Your task to perform on an android device: manage bookmarks in the chrome app Image 0: 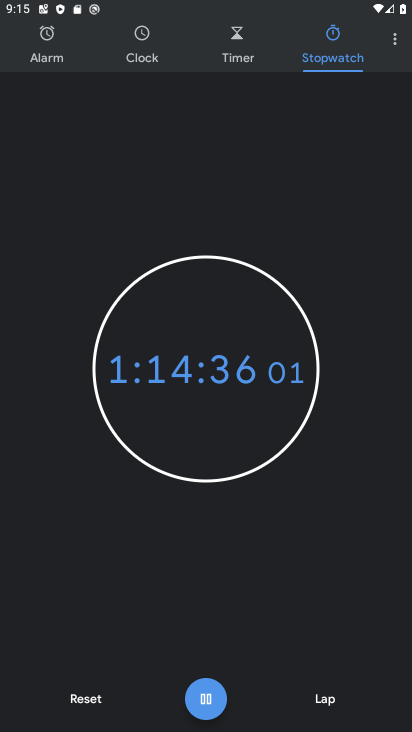
Step 0: press home button
Your task to perform on an android device: manage bookmarks in the chrome app Image 1: 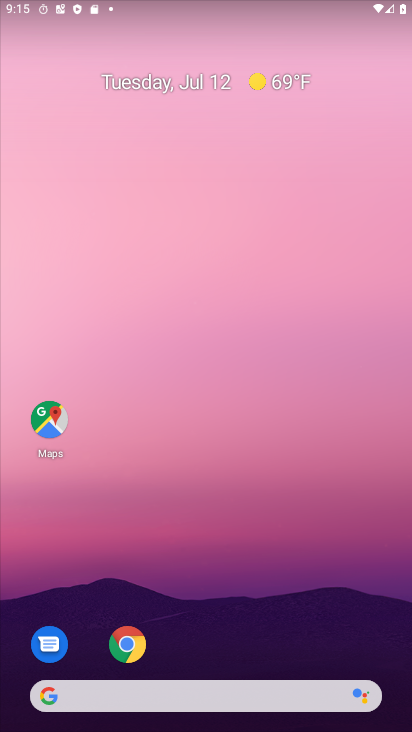
Step 1: click (125, 641)
Your task to perform on an android device: manage bookmarks in the chrome app Image 2: 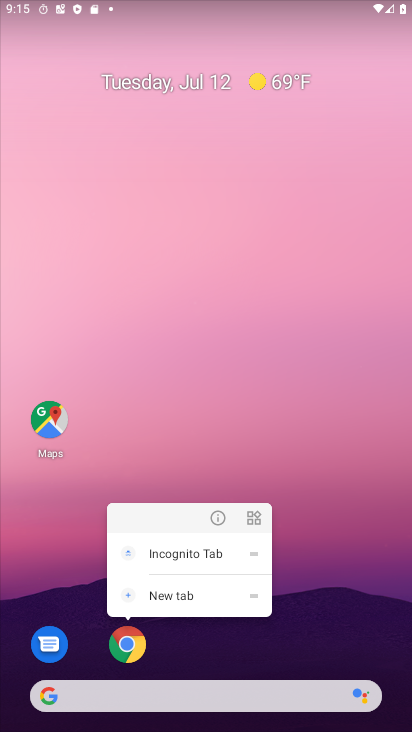
Step 2: click (126, 644)
Your task to perform on an android device: manage bookmarks in the chrome app Image 3: 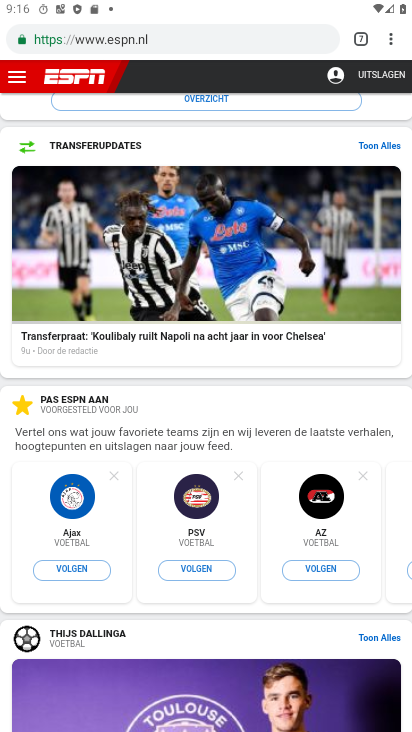
Step 3: click (390, 41)
Your task to perform on an android device: manage bookmarks in the chrome app Image 4: 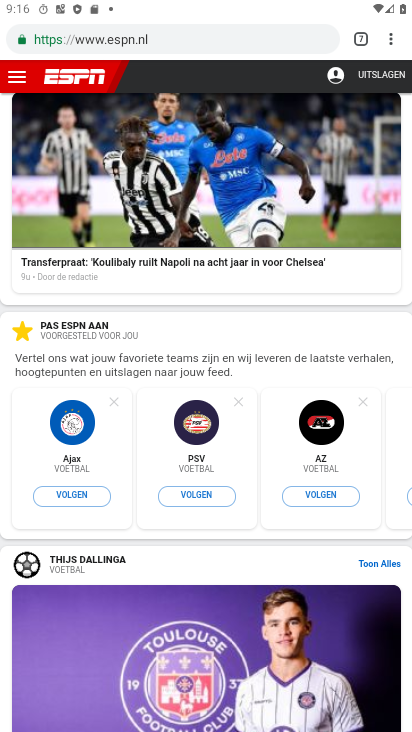
Step 4: click (392, 43)
Your task to perform on an android device: manage bookmarks in the chrome app Image 5: 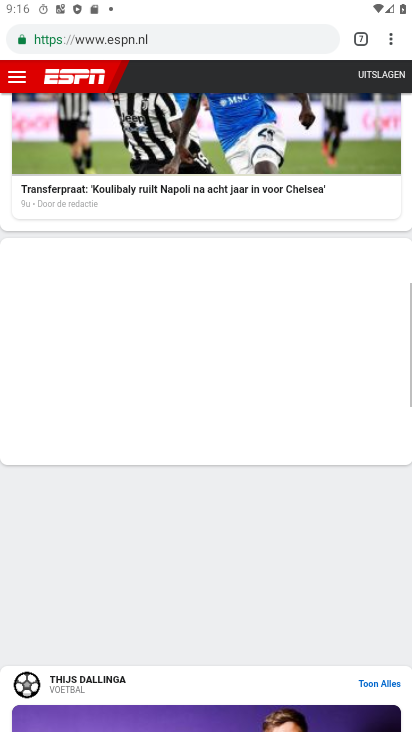
Step 5: click (391, 39)
Your task to perform on an android device: manage bookmarks in the chrome app Image 6: 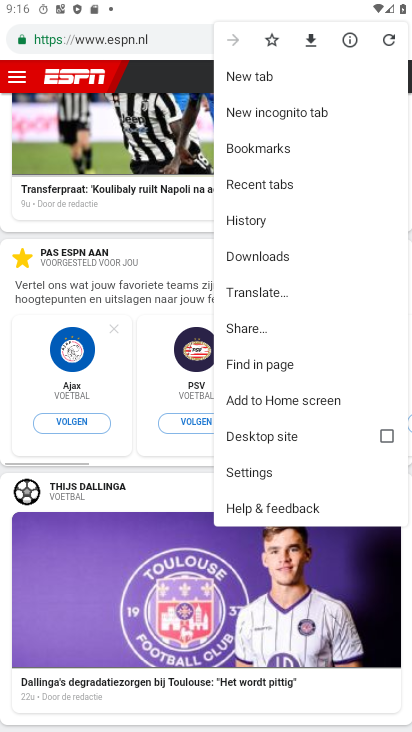
Step 6: click (290, 145)
Your task to perform on an android device: manage bookmarks in the chrome app Image 7: 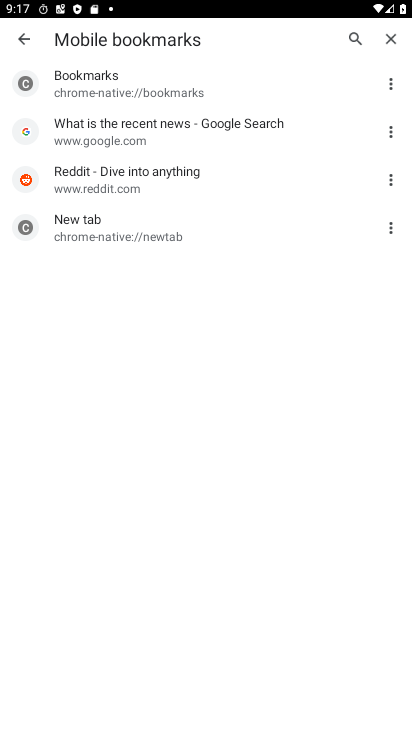
Step 7: click (391, 228)
Your task to perform on an android device: manage bookmarks in the chrome app Image 8: 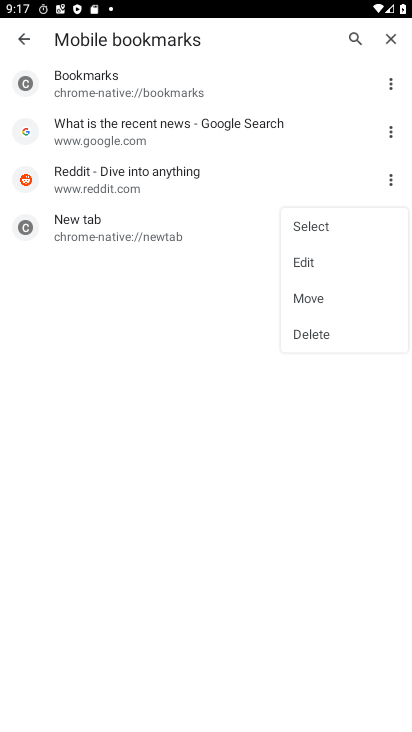
Step 8: click (323, 332)
Your task to perform on an android device: manage bookmarks in the chrome app Image 9: 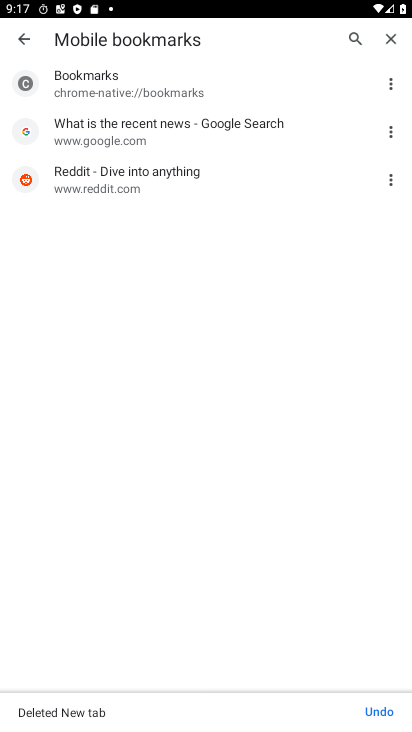
Step 9: task complete